Your task to perform on an android device: Open location settings Image 0: 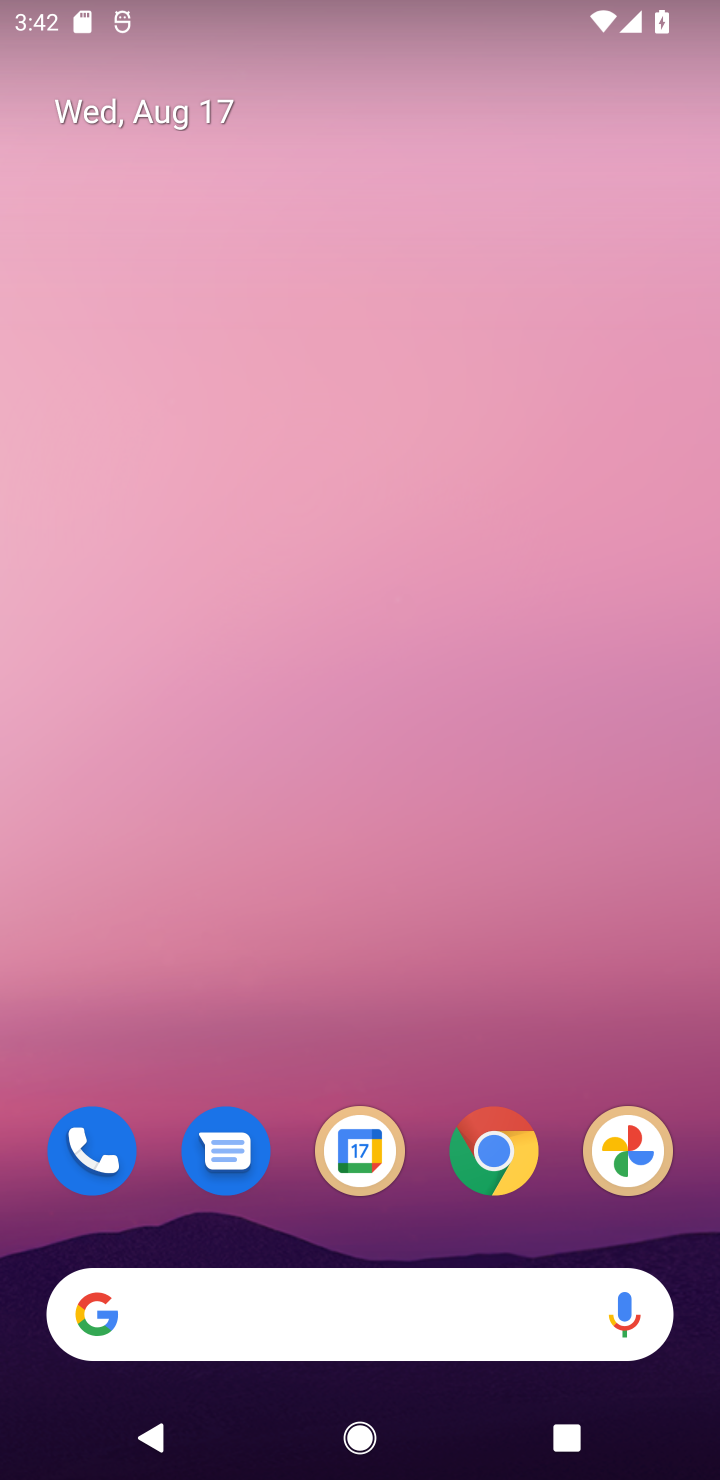
Step 0: drag from (446, 1220) to (544, 337)
Your task to perform on an android device: Open location settings Image 1: 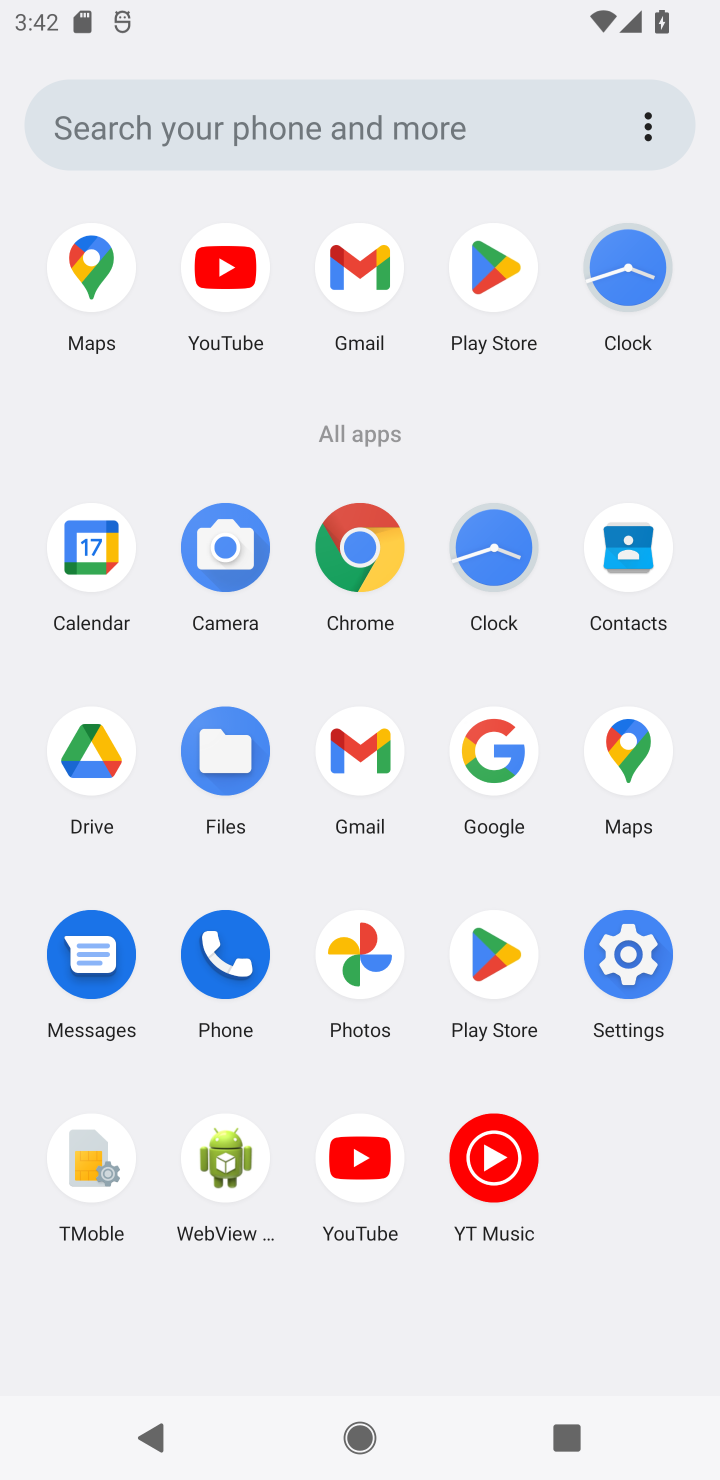
Step 1: click (623, 1002)
Your task to perform on an android device: Open location settings Image 2: 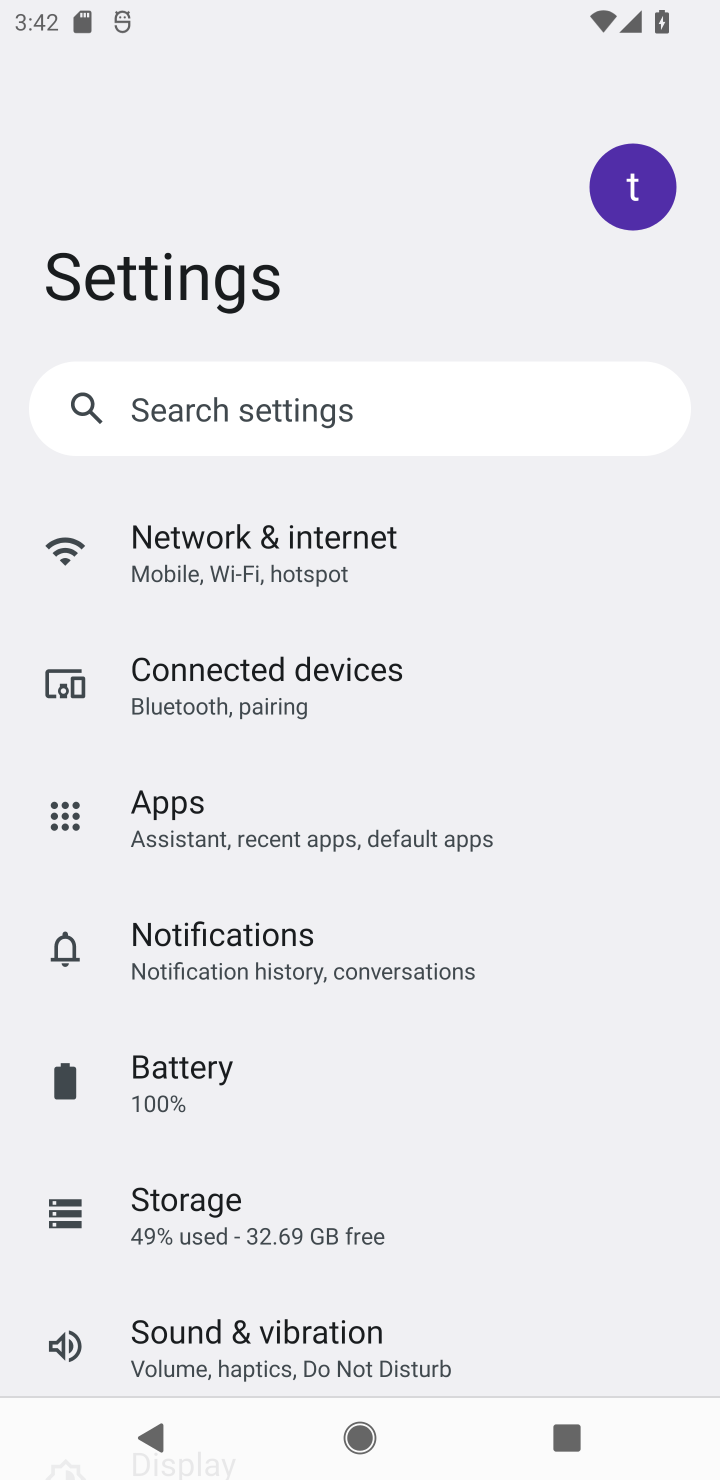
Step 2: drag from (276, 1249) to (339, 435)
Your task to perform on an android device: Open location settings Image 3: 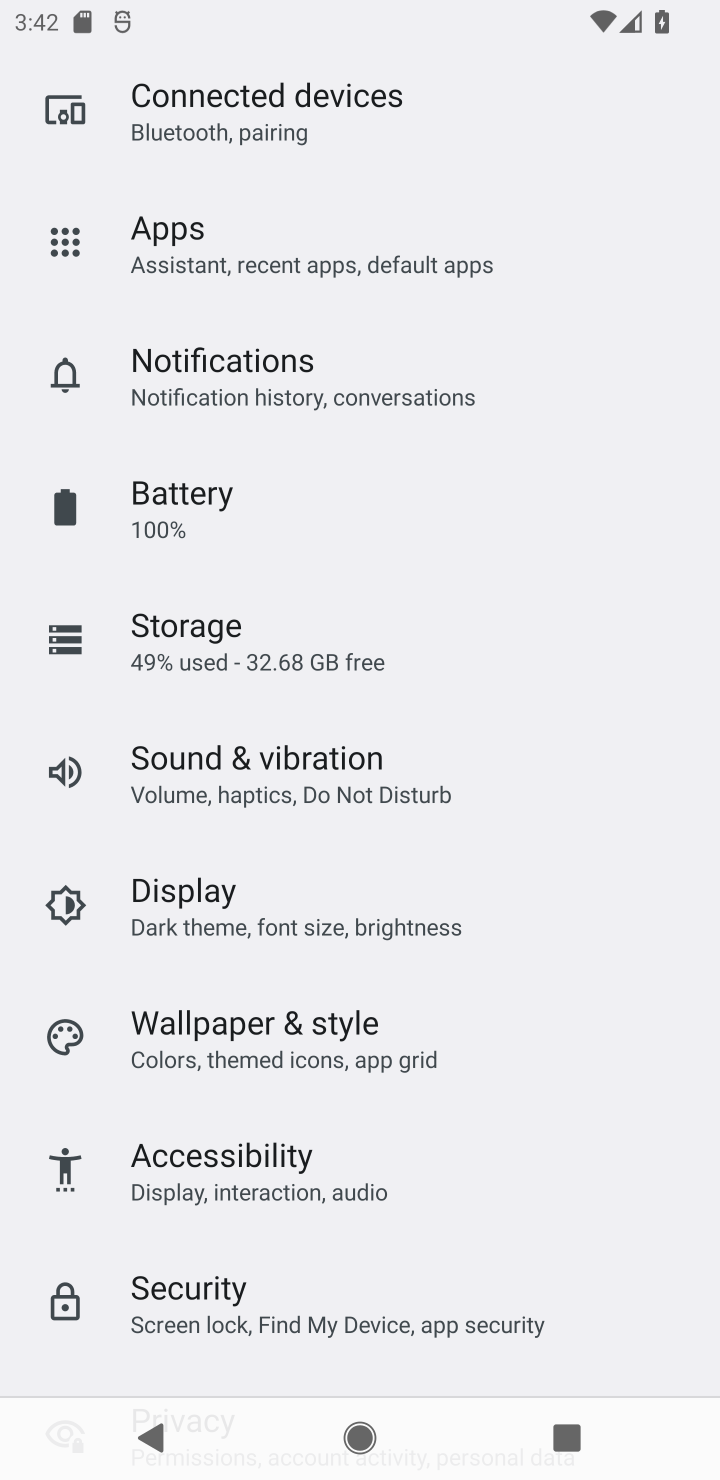
Step 3: drag from (277, 1258) to (402, 347)
Your task to perform on an android device: Open location settings Image 4: 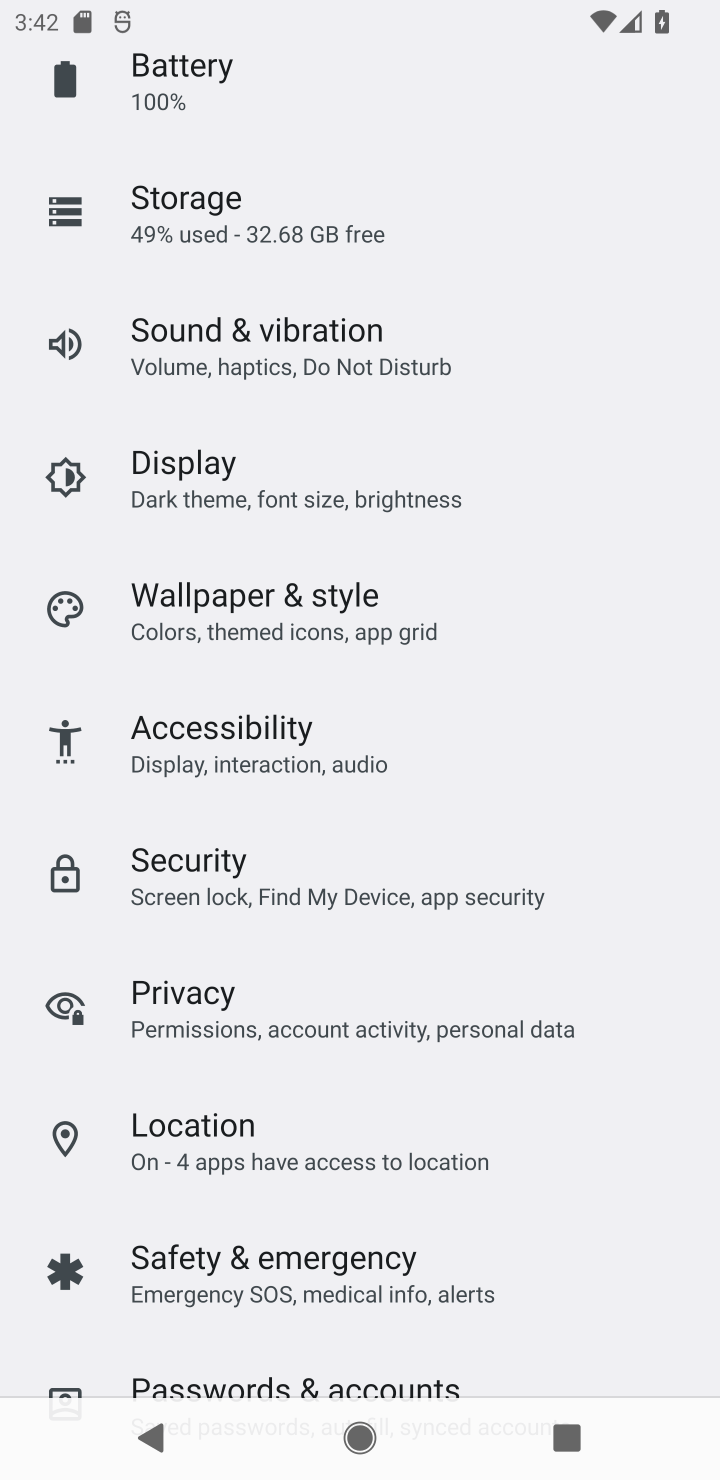
Step 4: click (298, 1126)
Your task to perform on an android device: Open location settings Image 5: 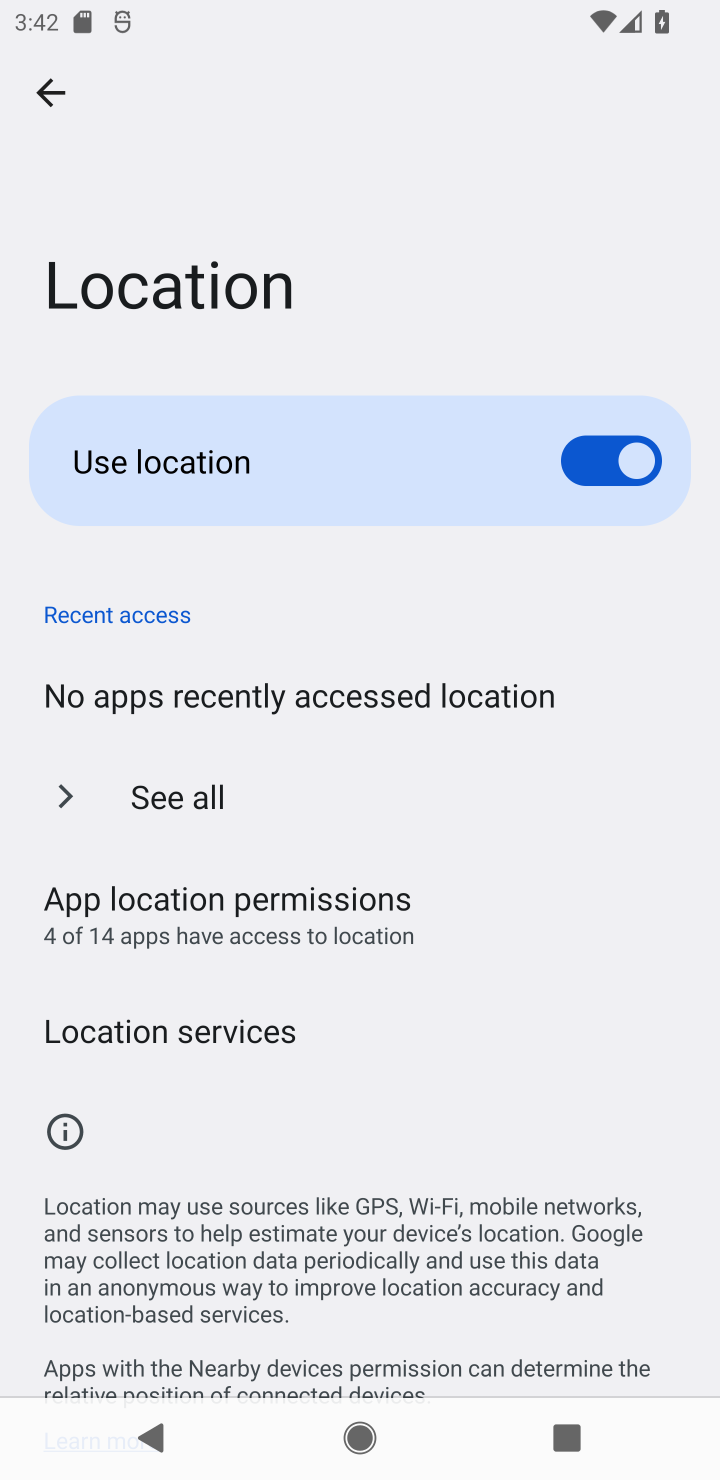
Step 5: task complete